Your task to perform on an android device: turn on sleep mode Image 0: 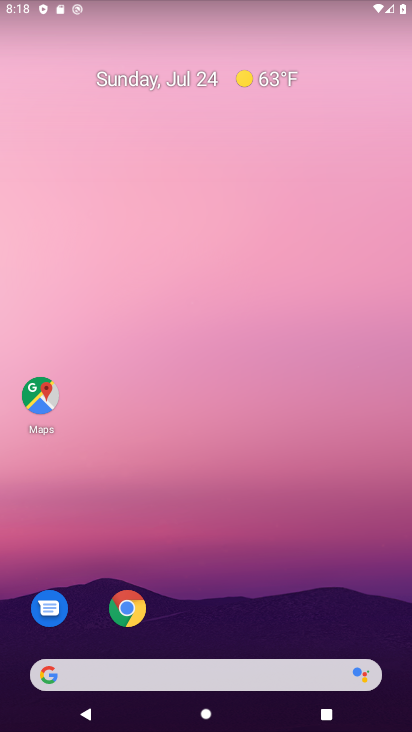
Step 0: press home button
Your task to perform on an android device: turn on sleep mode Image 1: 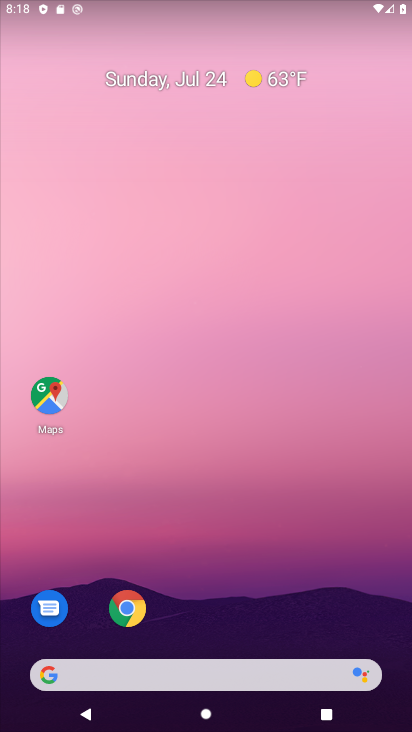
Step 1: drag from (213, 631) to (244, 0)
Your task to perform on an android device: turn on sleep mode Image 2: 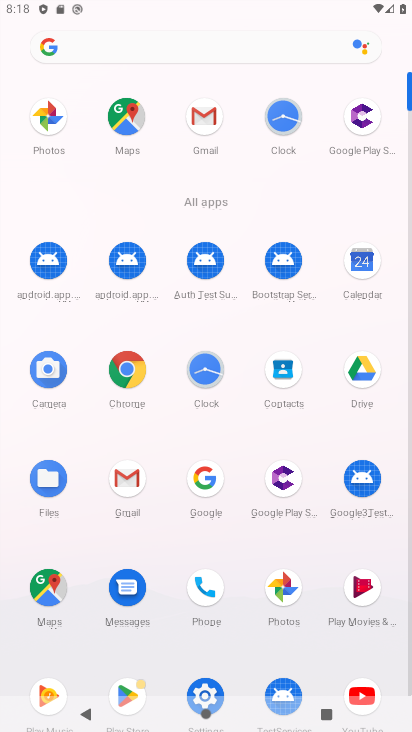
Step 2: click (205, 681)
Your task to perform on an android device: turn on sleep mode Image 3: 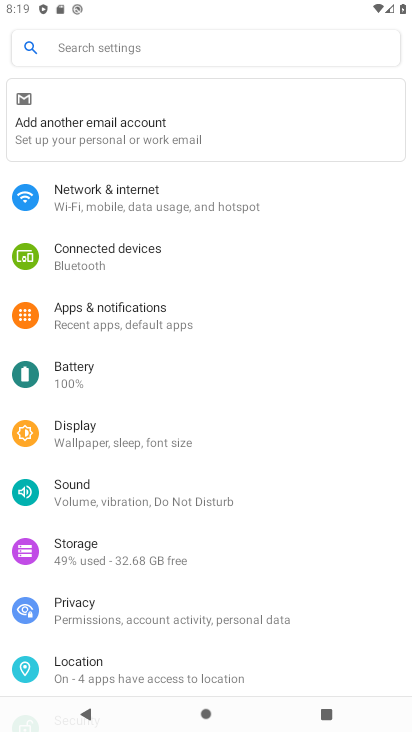
Step 3: click (113, 433)
Your task to perform on an android device: turn on sleep mode Image 4: 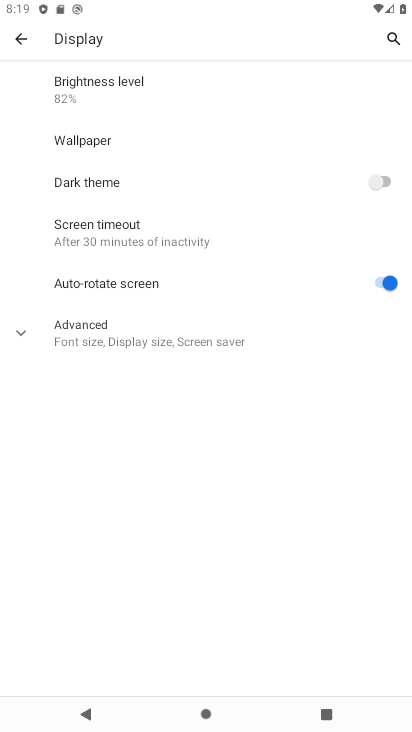
Step 4: click (20, 330)
Your task to perform on an android device: turn on sleep mode Image 5: 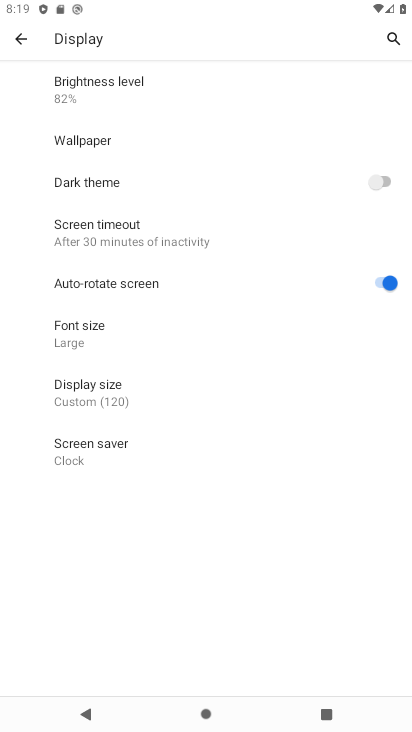
Step 5: task complete